Your task to perform on an android device: Search for Italian restaurants on Maps Image 0: 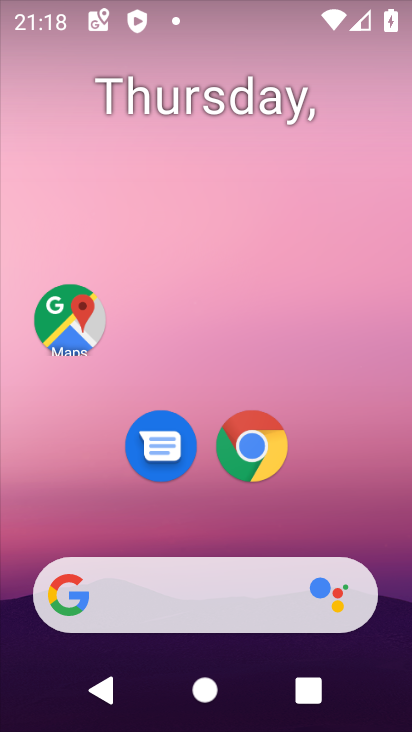
Step 0: click (51, 286)
Your task to perform on an android device: Search for Italian restaurants on Maps Image 1: 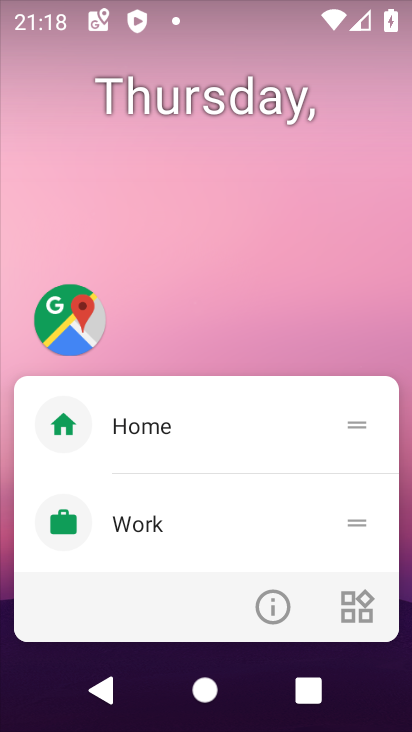
Step 1: click (52, 313)
Your task to perform on an android device: Search for Italian restaurants on Maps Image 2: 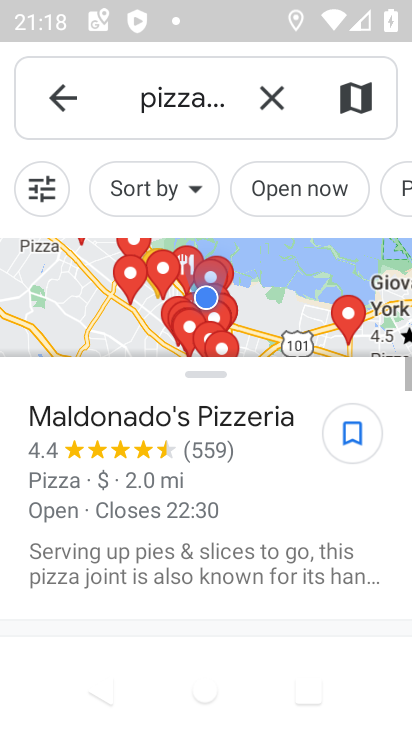
Step 2: click (274, 103)
Your task to perform on an android device: Search for Italian restaurants on Maps Image 3: 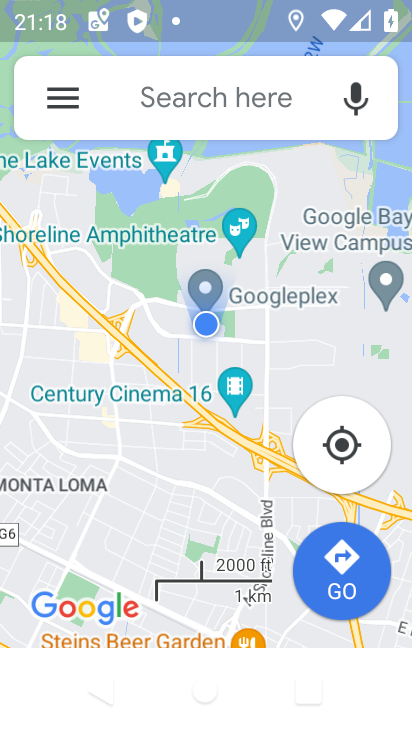
Step 3: click (95, 87)
Your task to perform on an android device: Search for Italian restaurants on Maps Image 4: 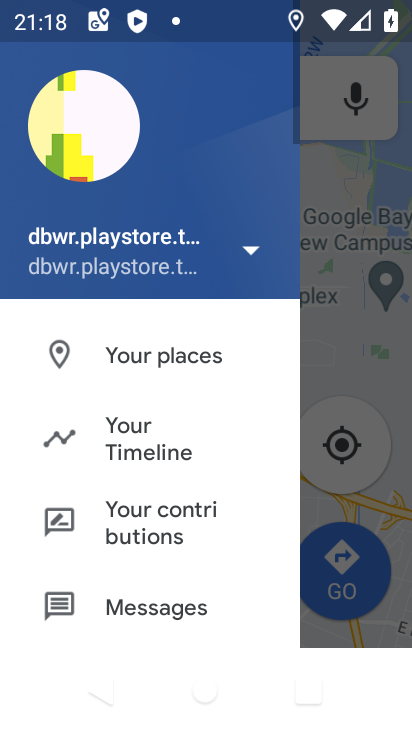
Step 4: click (362, 118)
Your task to perform on an android device: Search for Italian restaurants on Maps Image 5: 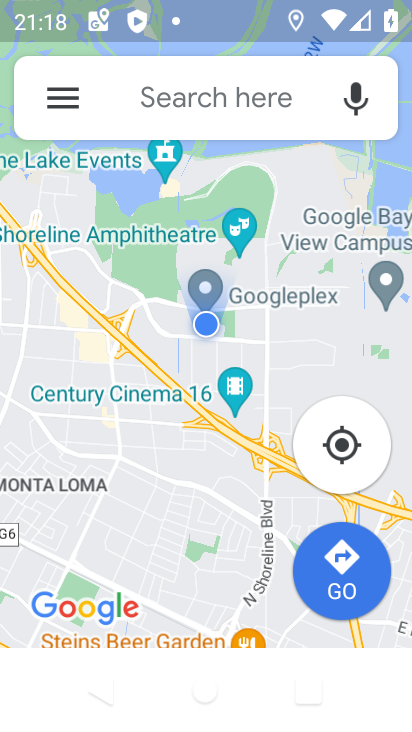
Step 5: click (251, 97)
Your task to perform on an android device: Search for Italian restaurants on Maps Image 6: 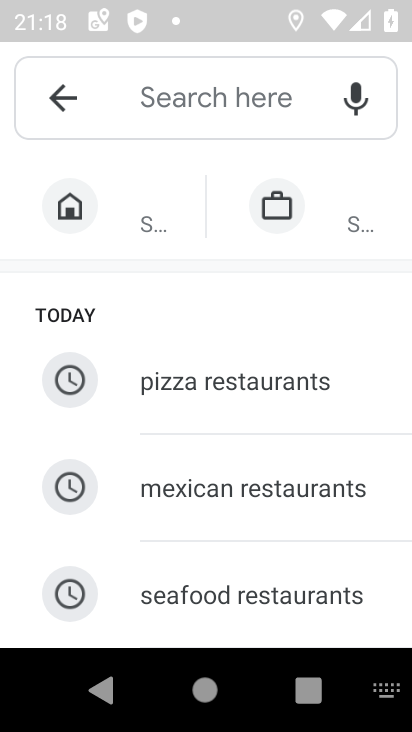
Step 6: type " Italian restaurants"
Your task to perform on an android device: Search for Italian restaurants on Maps Image 7: 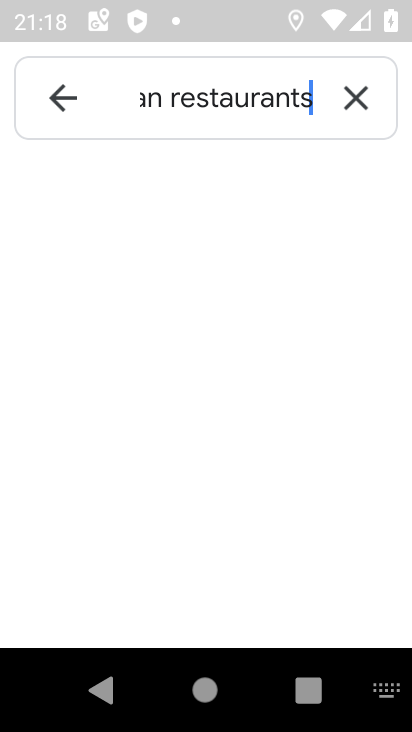
Step 7: type ""
Your task to perform on an android device: Search for Italian restaurants on Maps Image 8: 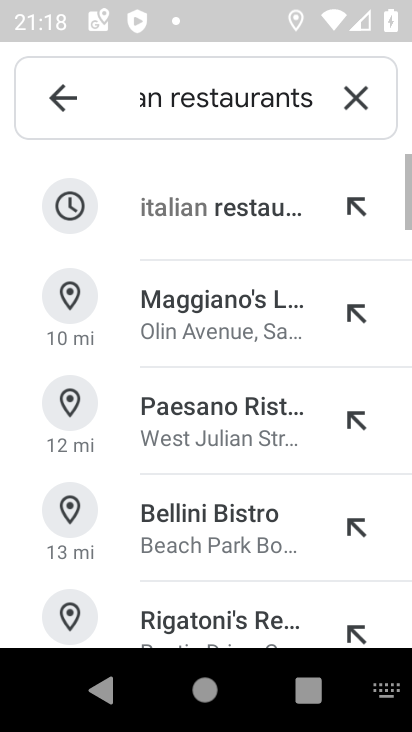
Step 8: click (157, 200)
Your task to perform on an android device: Search for Italian restaurants on Maps Image 9: 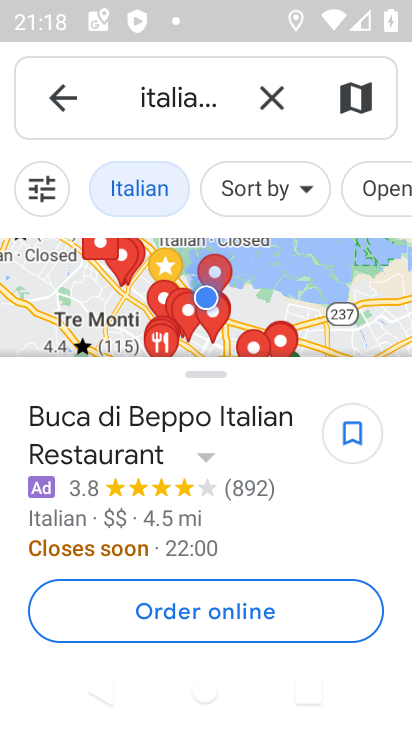
Step 9: task complete